Your task to perform on an android device: Go to Reddit.com Image 0: 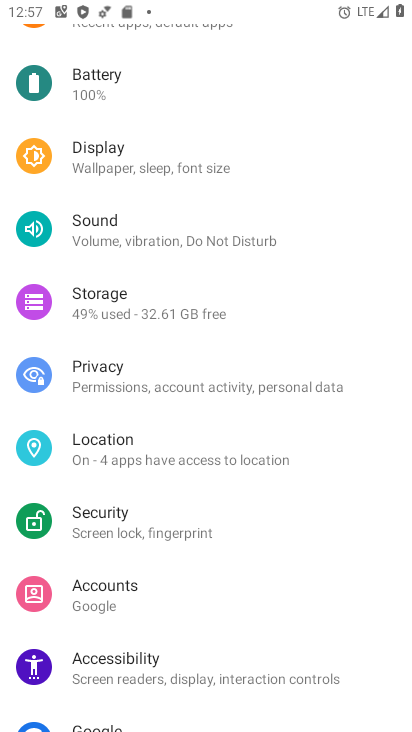
Step 0: press back button
Your task to perform on an android device: Go to Reddit.com Image 1: 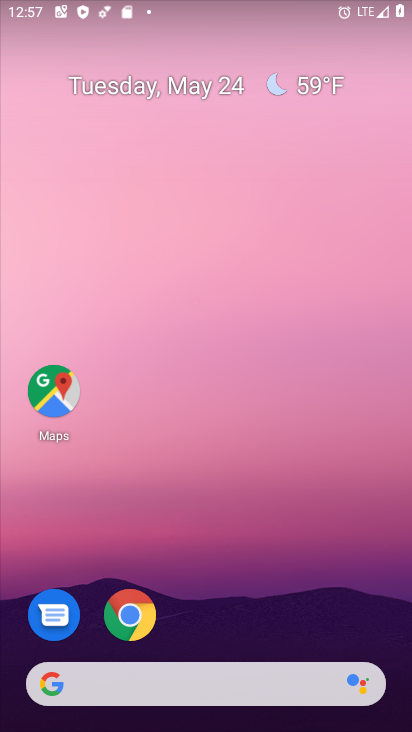
Step 1: drag from (240, 553) to (260, 7)
Your task to perform on an android device: Go to Reddit.com Image 2: 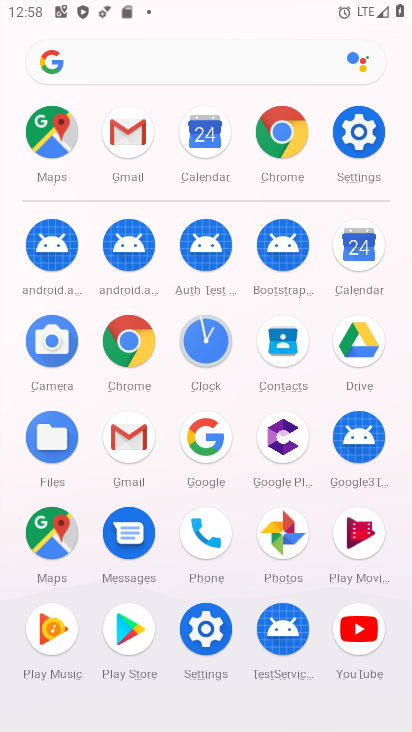
Step 2: click (130, 333)
Your task to perform on an android device: Go to Reddit.com Image 3: 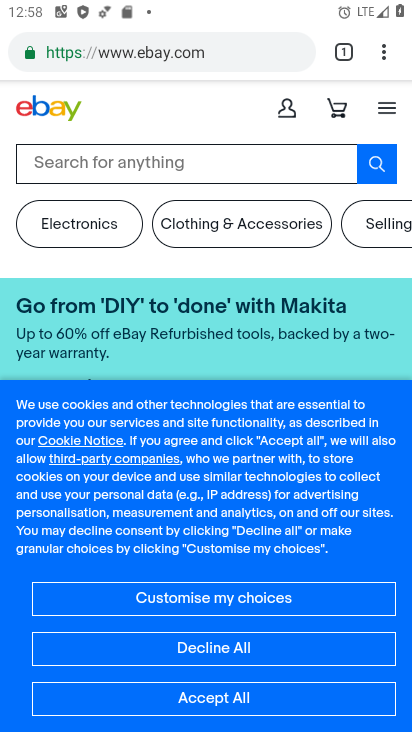
Step 3: click (154, 51)
Your task to perform on an android device: Go to Reddit.com Image 4: 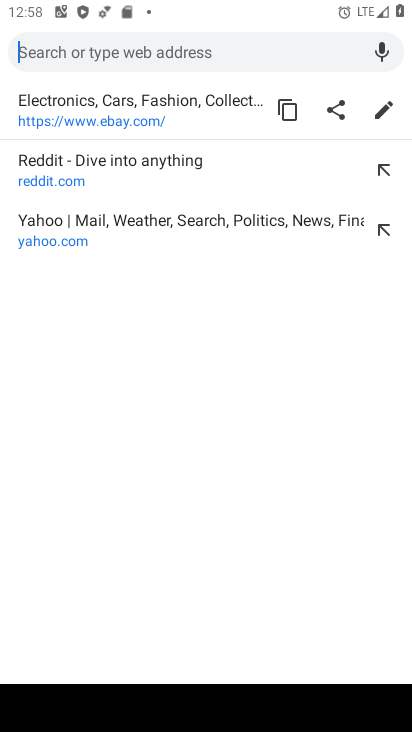
Step 4: click (127, 173)
Your task to perform on an android device: Go to Reddit.com Image 5: 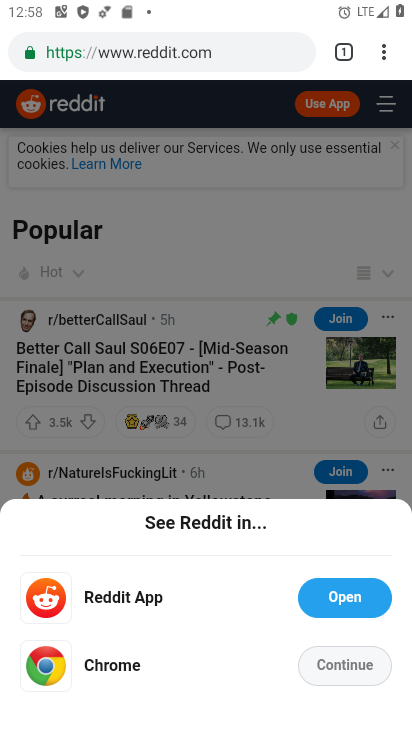
Step 5: task complete